Your task to perform on an android device: Search for pizza restaurants on Maps Image 0: 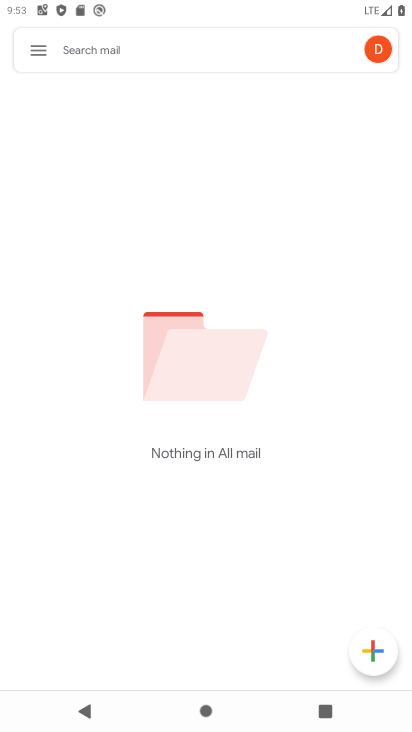
Step 0: press home button
Your task to perform on an android device: Search for pizza restaurants on Maps Image 1: 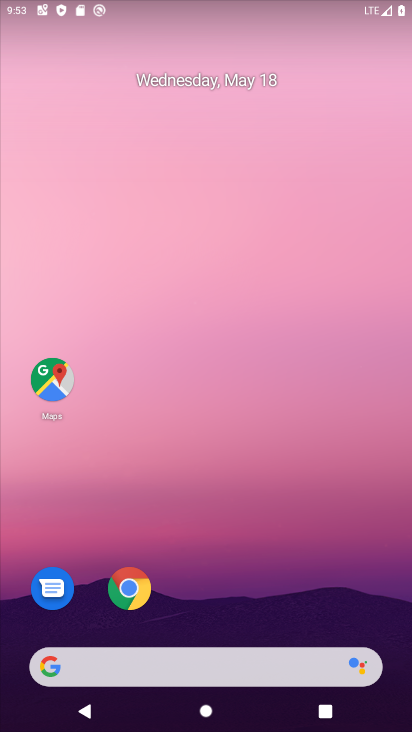
Step 1: click (52, 377)
Your task to perform on an android device: Search for pizza restaurants on Maps Image 2: 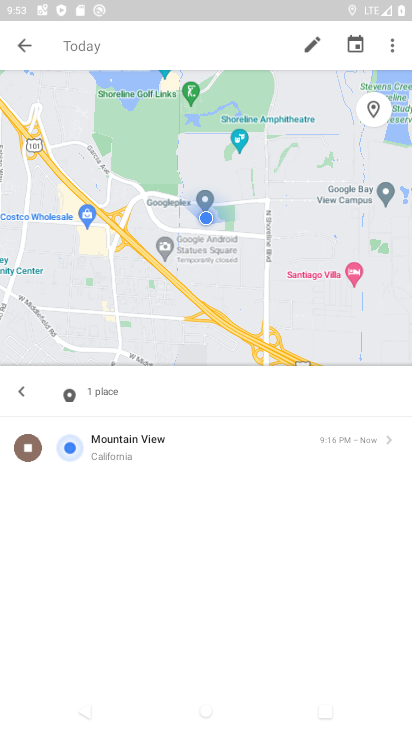
Step 2: click (27, 47)
Your task to perform on an android device: Search for pizza restaurants on Maps Image 3: 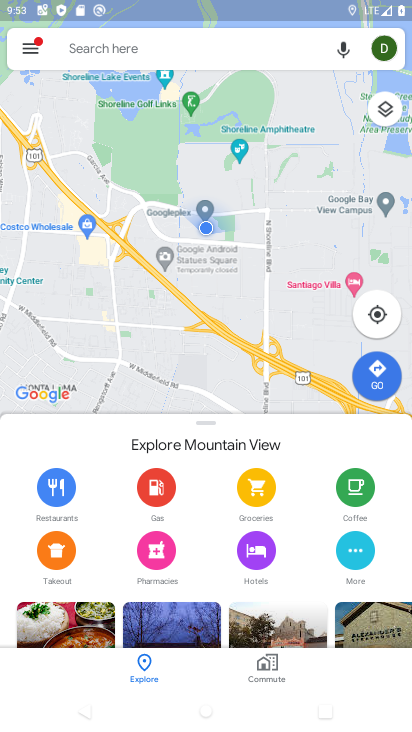
Step 3: click (89, 50)
Your task to perform on an android device: Search for pizza restaurants on Maps Image 4: 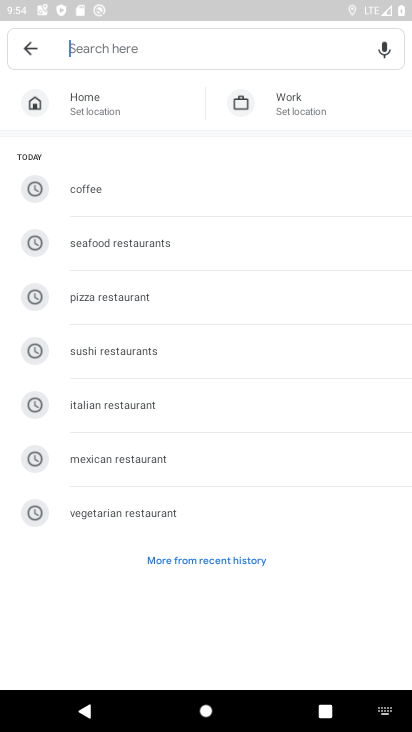
Step 4: type "pizza restaurants "
Your task to perform on an android device: Search for pizza restaurants on Maps Image 5: 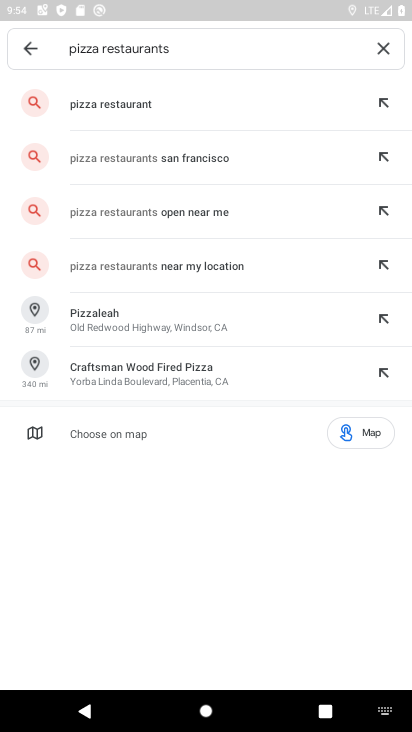
Step 5: click (84, 100)
Your task to perform on an android device: Search for pizza restaurants on Maps Image 6: 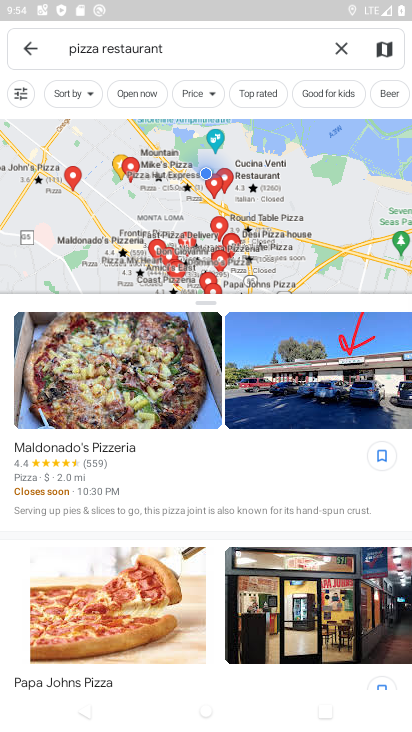
Step 6: task complete